Your task to perform on an android device: turn off smart reply in the gmail app Image 0: 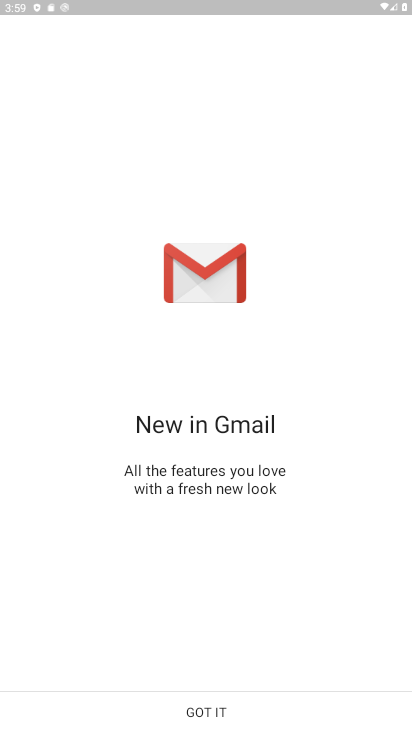
Step 0: click (253, 721)
Your task to perform on an android device: turn off smart reply in the gmail app Image 1: 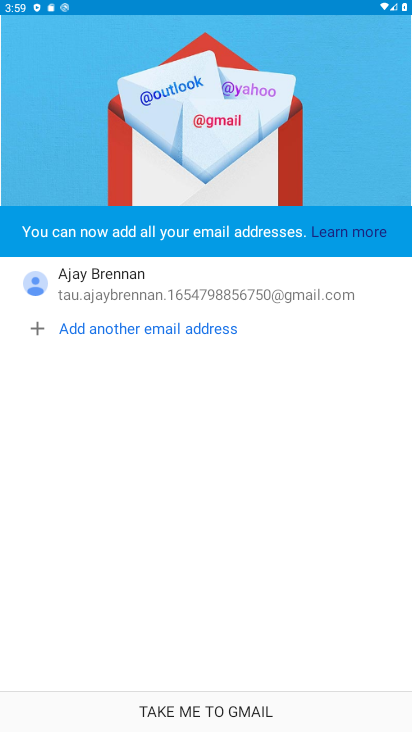
Step 1: click (253, 721)
Your task to perform on an android device: turn off smart reply in the gmail app Image 2: 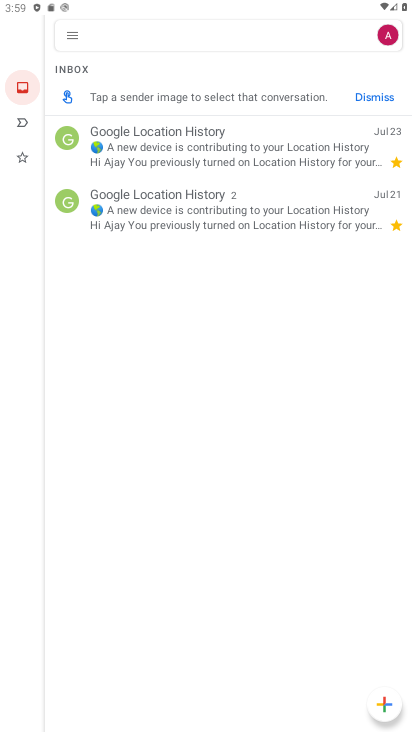
Step 2: click (74, 43)
Your task to perform on an android device: turn off smart reply in the gmail app Image 3: 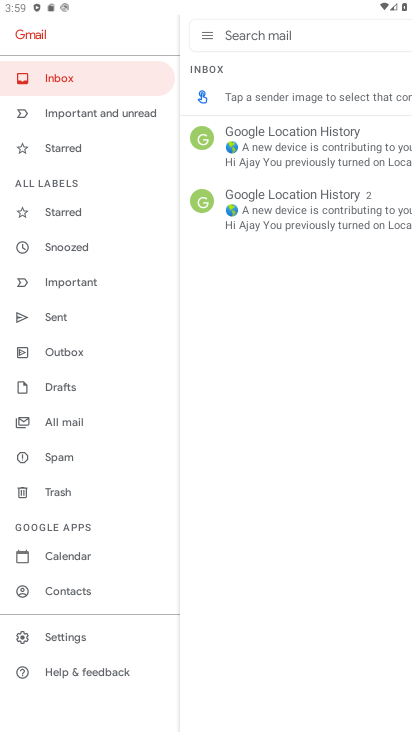
Step 3: click (75, 631)
Your task to perform on an android device: turn off smart reply in the gmail app Image 4: 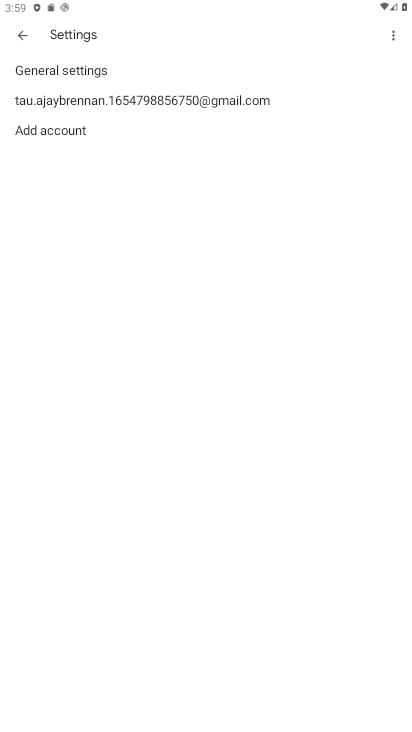
Step 4: click (252, 110)
Your task to perform on an android device: turn off smart reply in the gmail app Image 5: 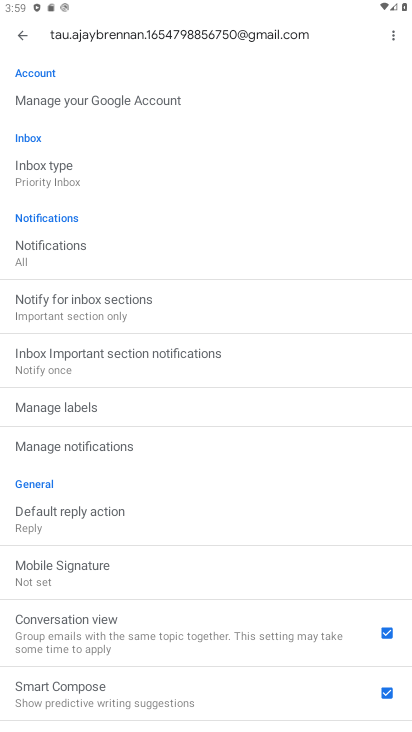
Step 5: drag from (209, 662) to (214, 395)
Your task to perform on an android device: turn off smart reply in the gmail app Image 6: 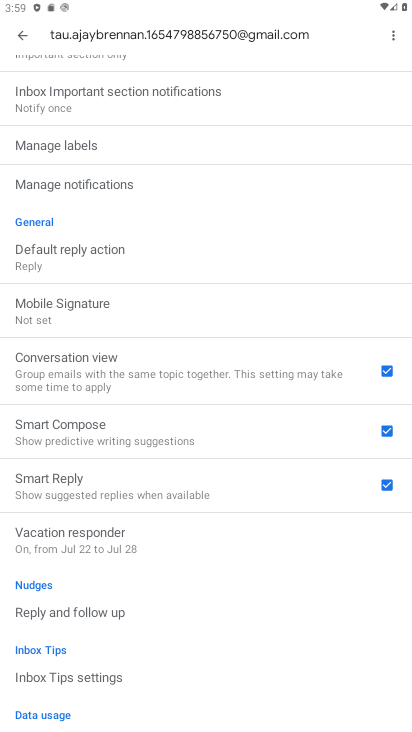
Step 6: click (380, 663)
Your task to perform on an android device: turn off smart reply in the gmail app Image 7: 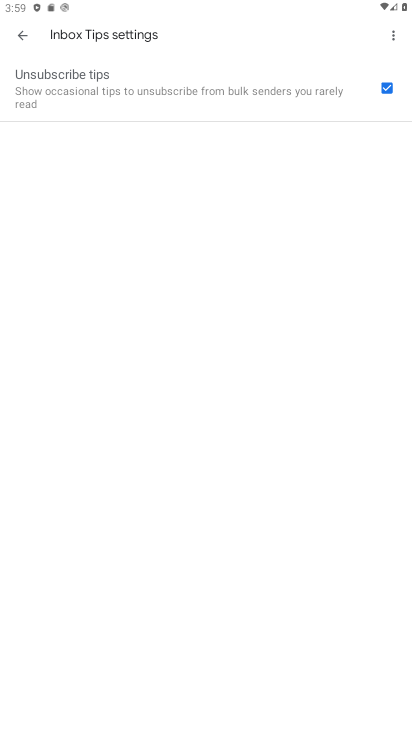
Step 7: click (20, 31)
Your task to perform on an android device: turn off smart reply in the gmail app Image 8: 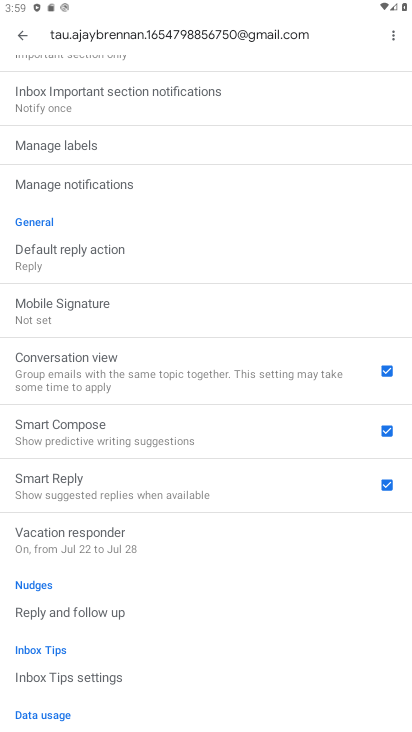
Step 8: click (386, 486)
Your task to perform on an android device: turn off smart reply in the gmail app Image 9: 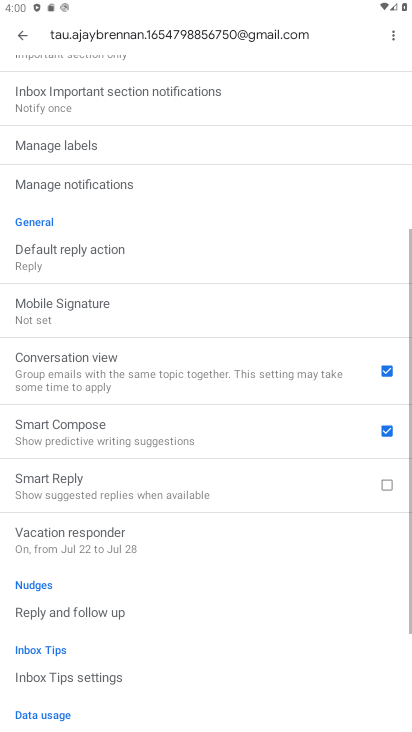
Step 9: task complete